Your task to perform on an android device: delete browsing data in the chrome app Image 0: 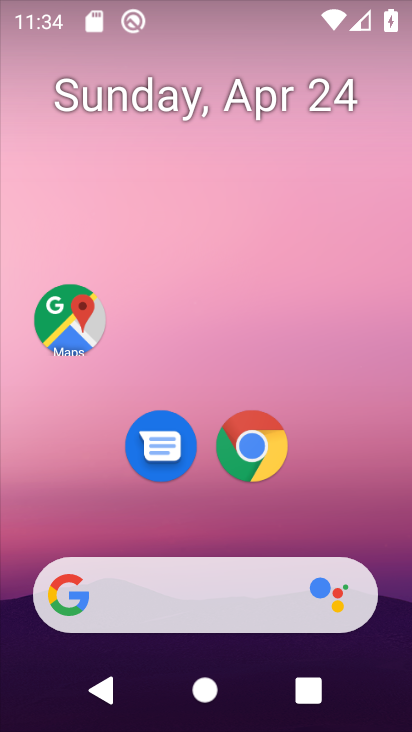
Step 0: click (291, 438)
Your task to perform on an android device: delete browsing data in the chrome app Image 1: 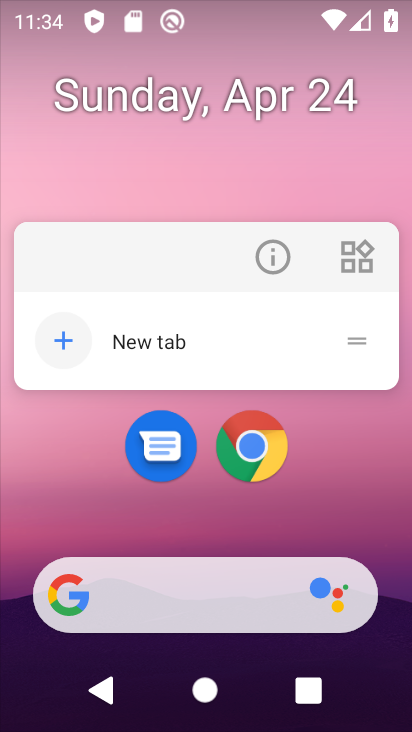
Step 1: click (278, 454)
Your task to perform on an android device: delete browsing data in the chrome app Image 2: 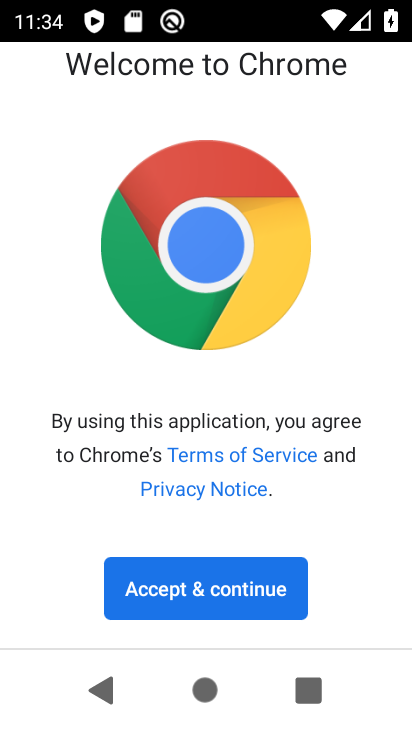
Step 2: click (216, 591)
Your task to perform on an android device: delete browsing data in the chrome app Image 3: 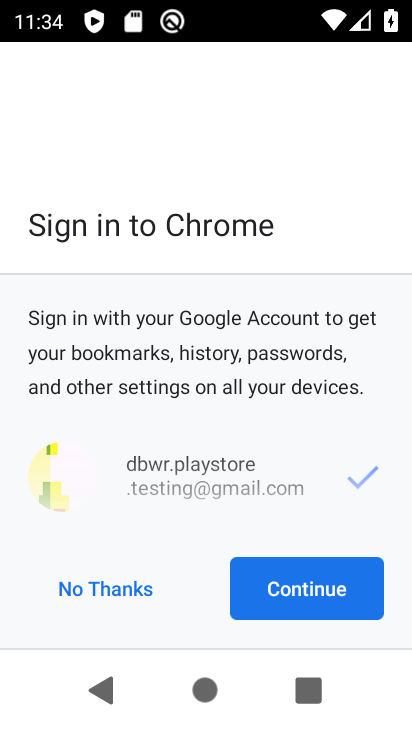
Step 3: click (305, 585)
Your task to perform on an android device: delete browsing data in the chrome app Image 4: 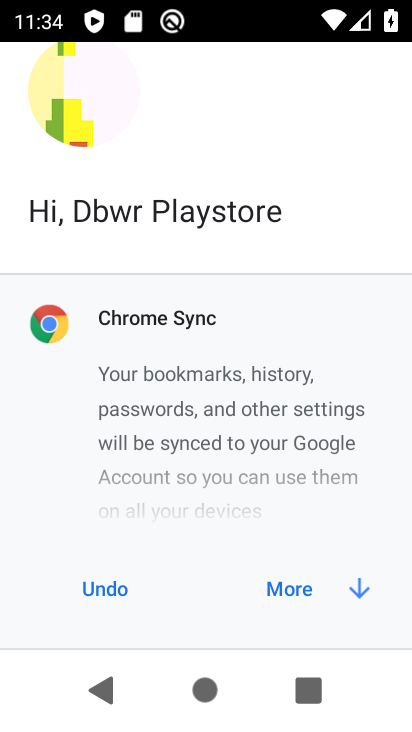
Step 4: click (305, 585)
Your task to perform on an android device: delete browsing data in the chrome app Image 5: 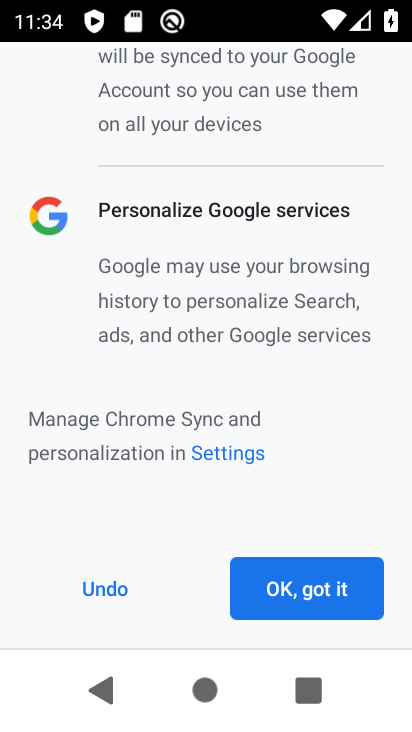
Step 5: click (305, 585)
Your task to perform on an android device: delete browsing data in the chrome app Image 6: 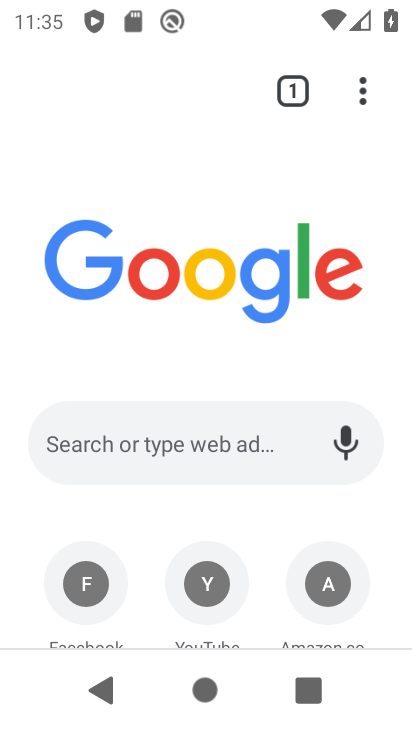
Step 6: drag from (377, 98) to (278, 493)
Your task to perform on an android device: delete browsing data in the chrome app Image 7: 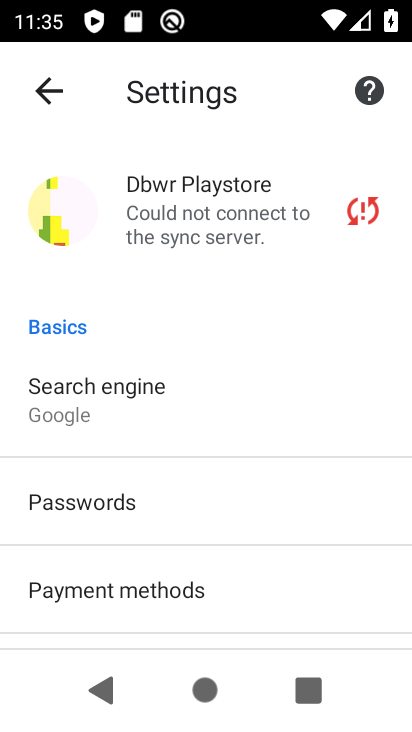
Step 7: drag from (229, 594) to (315, 111)
Your task to perform on an android device: delete browsing data in the chrome app Image 8: 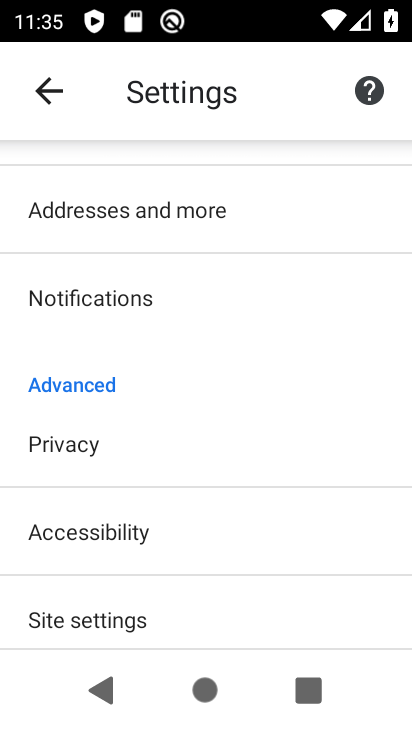
Step 8: click (105, 456)
Your task to perform on an android device: delete browsing data in the chrome app Image 9: 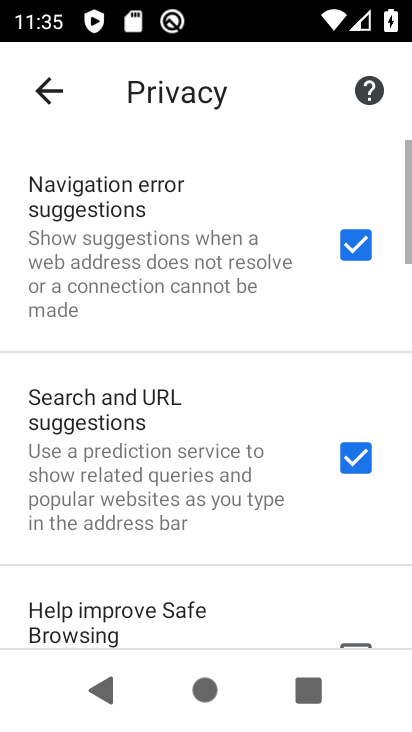
Step 9: drag from (139, 498) to (264, 1)
Your task to perform on an android device: delete browsing data in the chrome app Image 10: 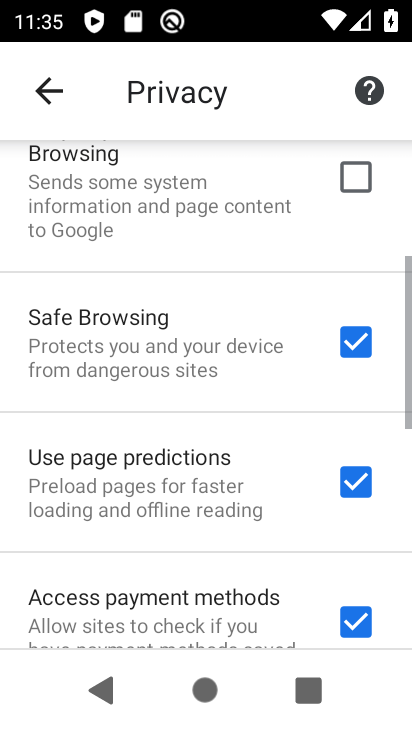
Step 10: drag from (247, 396) to (341, 48)
Your task to perform on an android device: delete browsing data in the chrome app Image 11: 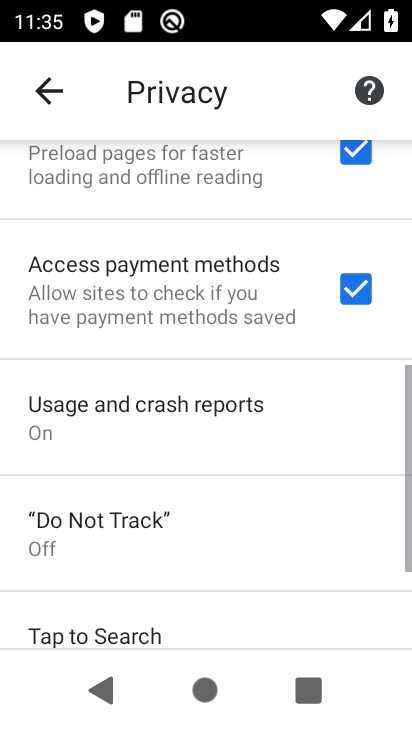
Step 11: drag from (185, 570) to (295, 35)
Your task to perform on an android device: delete browsing data in the chrome app Image 12: 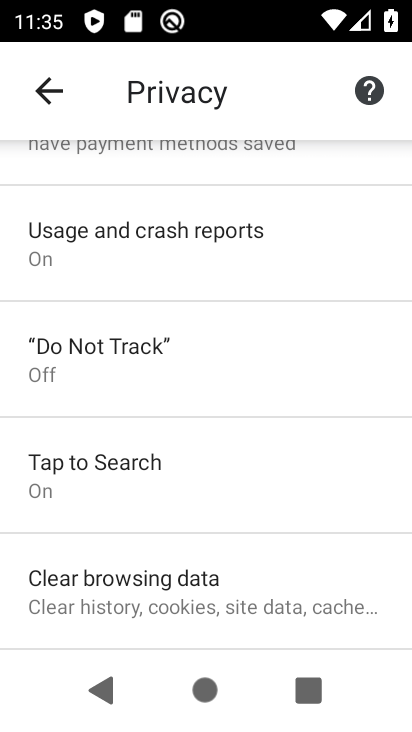
Step 12: click (115, 589)
Your task to perform on an android device: delete browsing data in the chrome app Image 13: 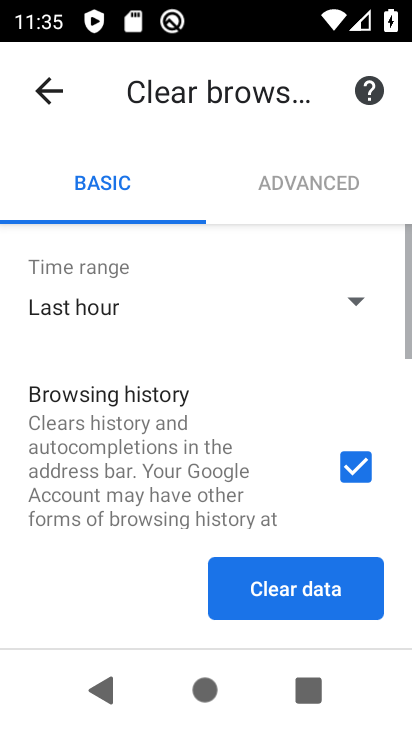
Step 13: drag from (91, 500) to (218, 55)
Your task to perform on an android device: delete browsing data in the chrome app Image 14: 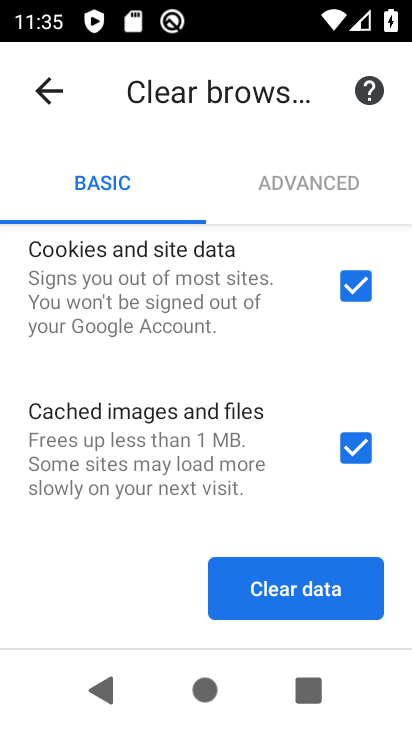
Step 14: click (352, 287)
Your task to perform on an android device: delete browsing data in the chrome app Image 15: 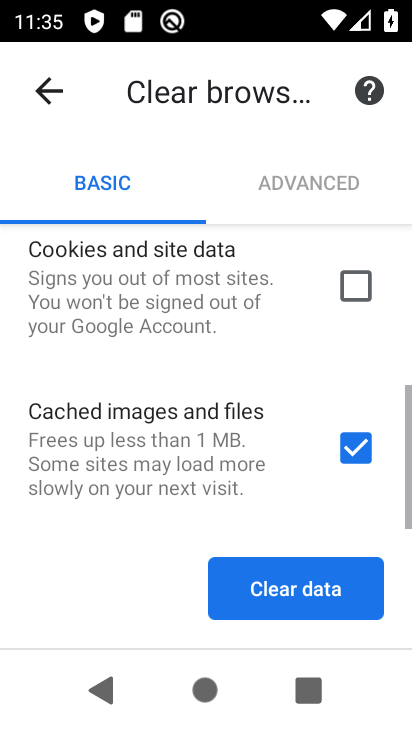
Step 15: click (363, 452)
Your task to perform on an android device: delete browsing data in the chrome app Image 16: 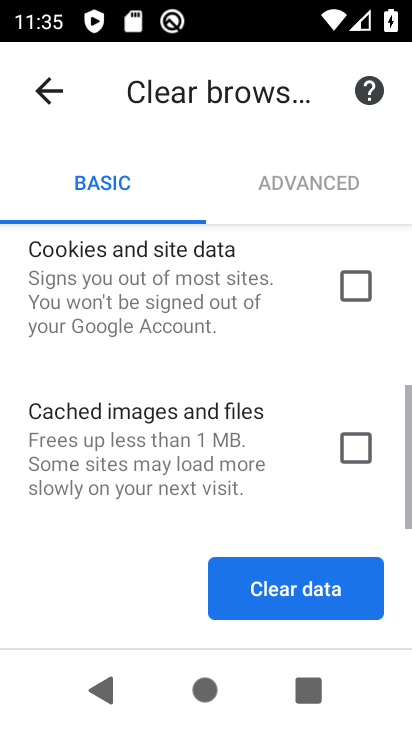
Step 16: drag from (140, 451) to (227, 117)
Your task to perform on an android device: delete browsing data in the chrome app Image 17: 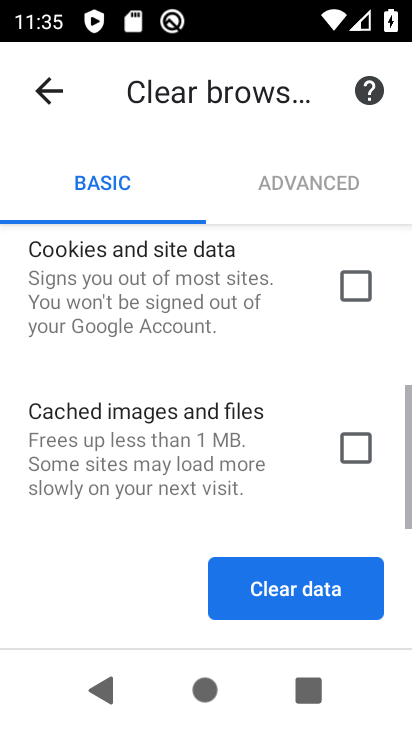
Step 17: click (331, 597)
Your task to perform on an android device: delete browsing data in the chrome app Image 18: 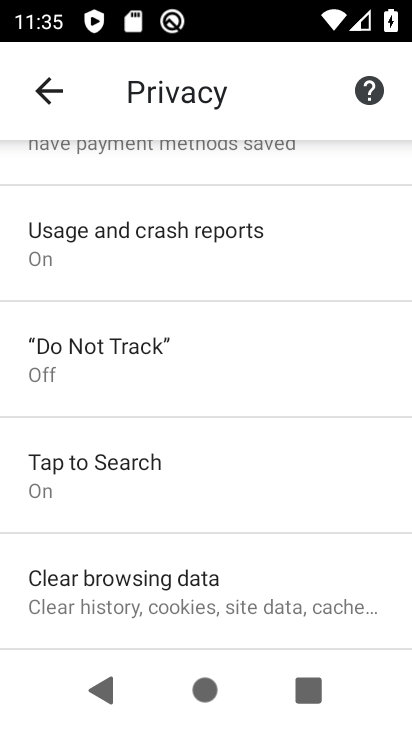
Step 18: task complete